Your task to perform on an android device: turn on improve location accuracy Image 0: 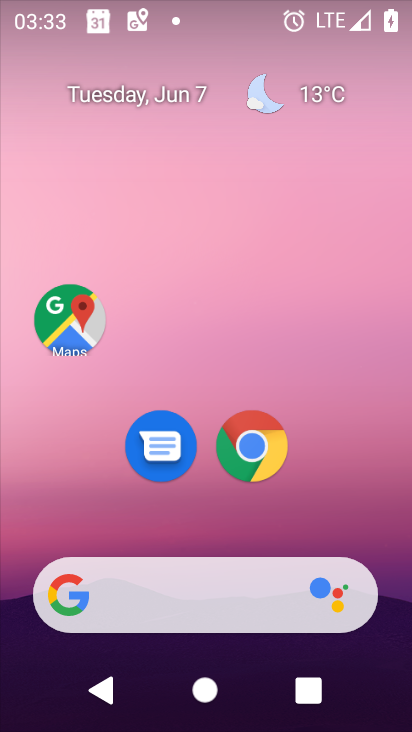
Step 0: drag from (226, 510) to (262, 18)
Your task to perform on an android device: turn on improve location accuracy Image 1: 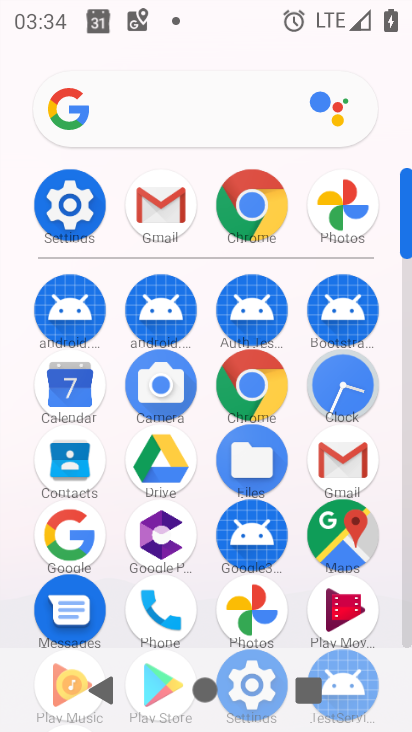
Step 1: click (84, 206)
Your task to perform on an android device: turn on improve location accuracy Image 2: 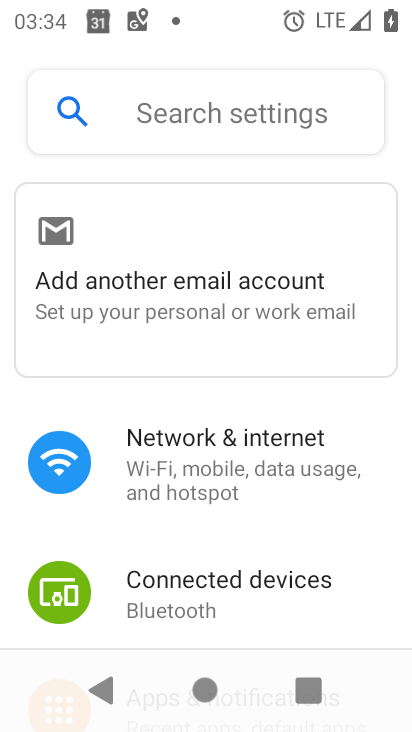
Step 2: drag from (319, 589) to (293, 100)
Your task to perform on an android device: turn on improve location accuracy Image 3: 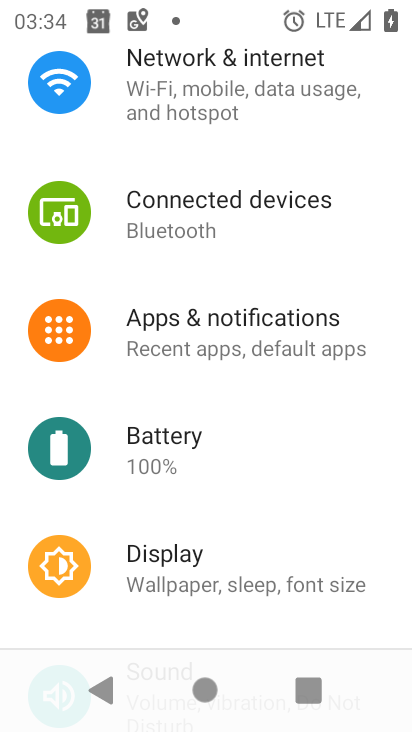
Step 3: drag from (282, 459) to (367, 1)
Your task to perform on an android device: turn on improve location accuracy Image 4: 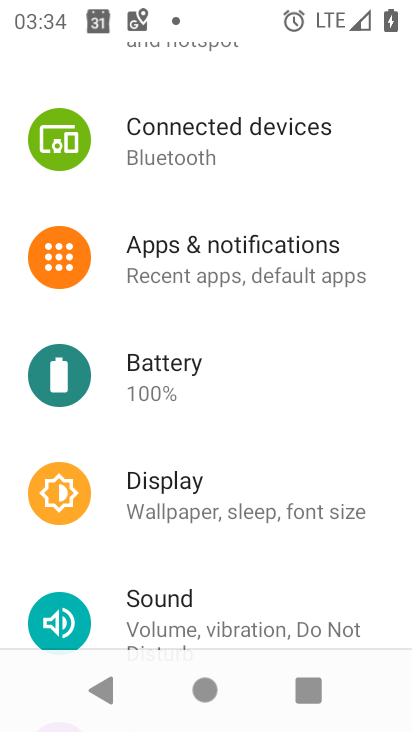
Step 4: drag from (255, 479) to (303, 35)
Your task to perform on an android device: turn on improve location accuracy Image 5: 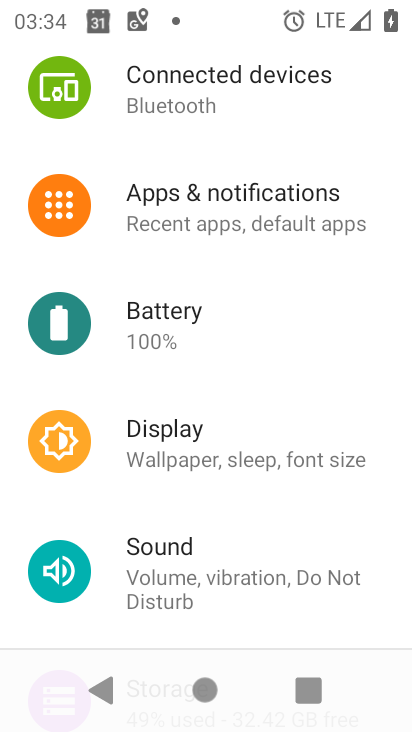
Step 5: drag from (265, 539) to (306, 48)
Your task to perform on an android device: turn on improve location accuracy Image 6: 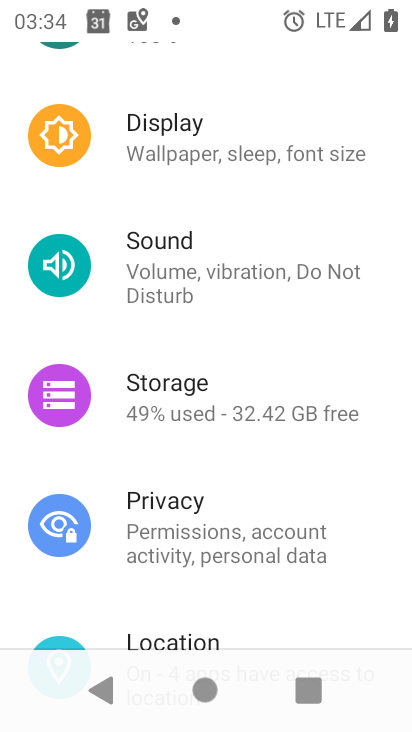
Step 6: click (218, 642)
Your task to perform on an android device: turn on improve location accuracy Image 7: 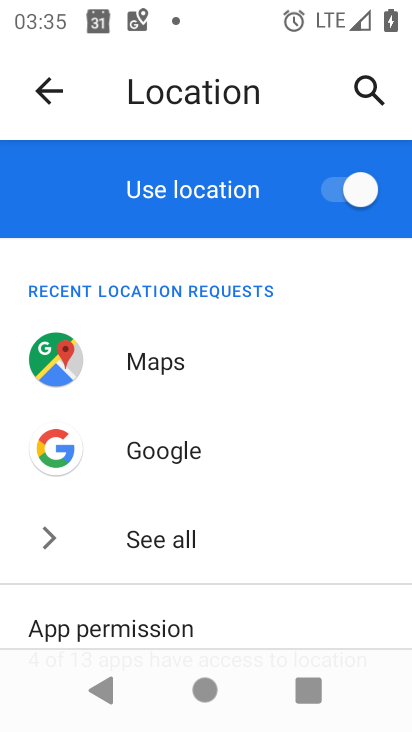
Step 7: drag from (96, 502) to (168, 91)
Your task to perform on an android device: turn on improve location accuracy Image 8: 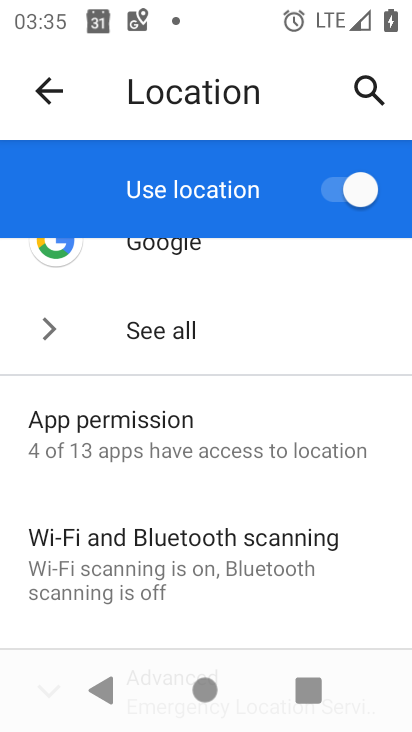
Step 8: drag from (225, 473) to (389, 36)
Your task to perform on an android device: turn on improve location accuracy Image 9: 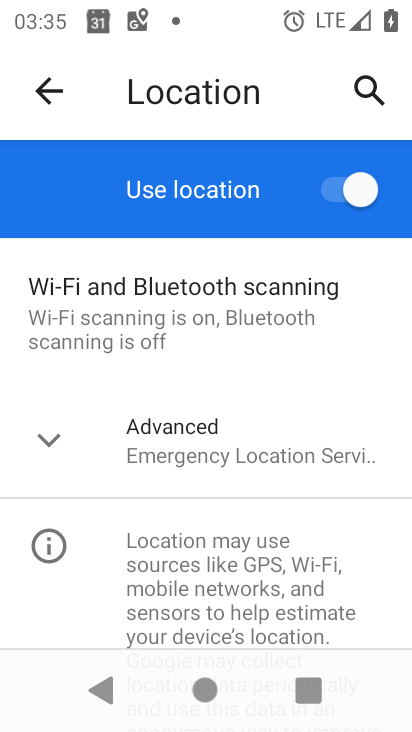
Step 9: click (338, 412)
Your task to perform on an android device: turn on improve location accuracy Image 10: 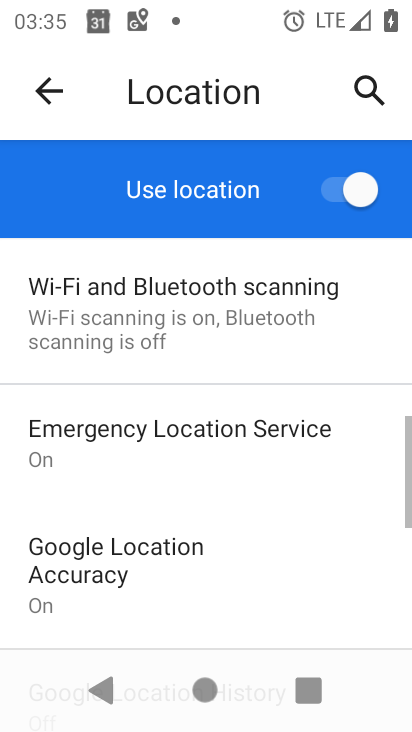
Step 10: drag from (258, 590) to (339, 178)
Your task to perform on an android device: turn on improve location accuracy Image 11: 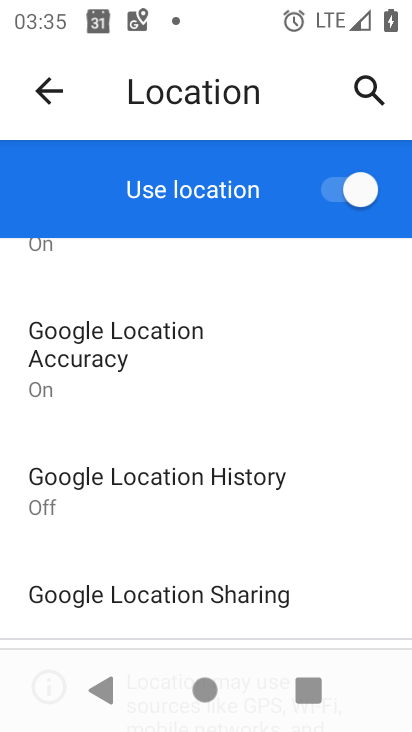
Step 11: click (161, 321)
Your task to perform on an android device: turn on improve location accuracy Image 12: 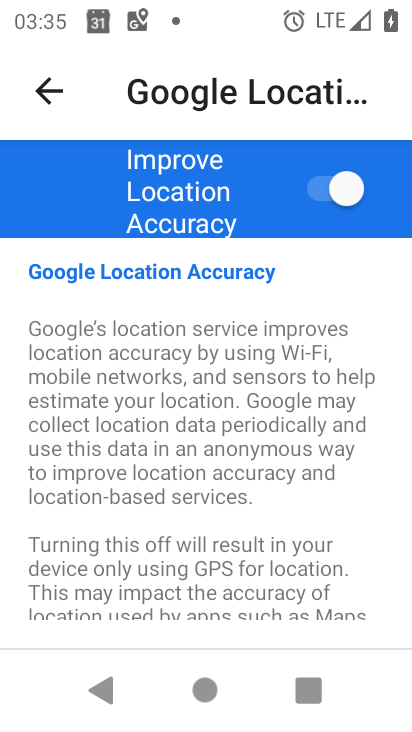
Step 12: task complete